Your task to perform on an android device: Do I have any events today? Image 0: 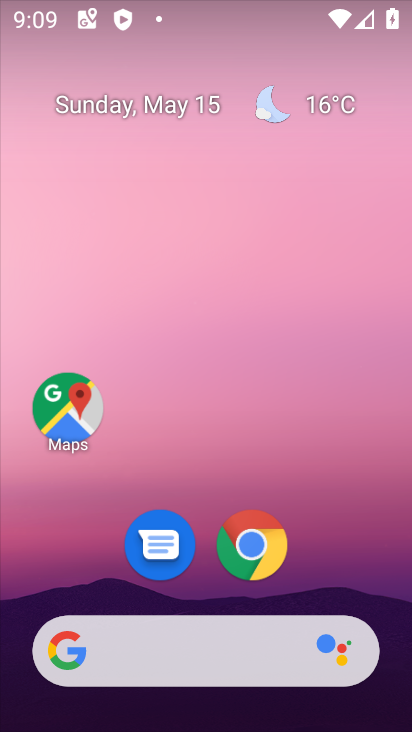
Step 0: drag from (323, 579) to (199, 30)
Your task to perform on an android device: Do I have any events today? Image 1: 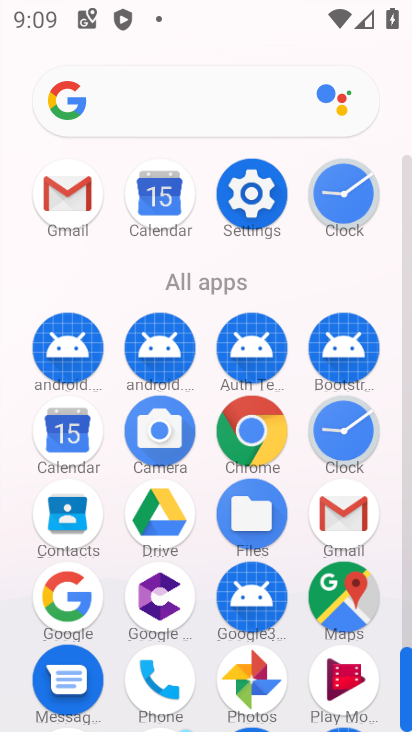
Step 1: click (66, 431)
Your task to perform on an android device: Do I have any events today? Image 2: 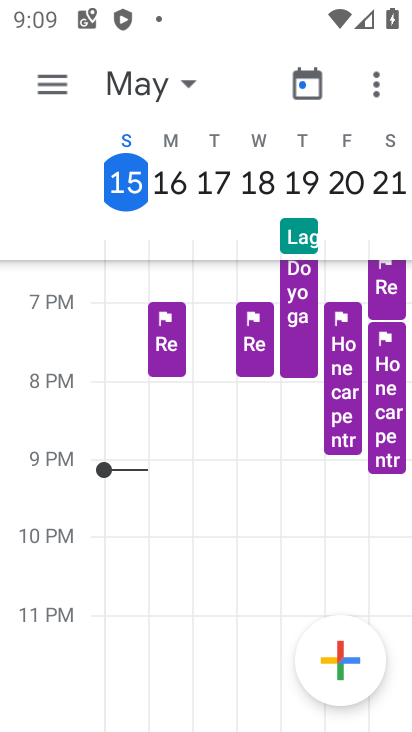
Step 2: click (309, 88)
Your task to perform on an android device: Do I have any events today? Image 3: 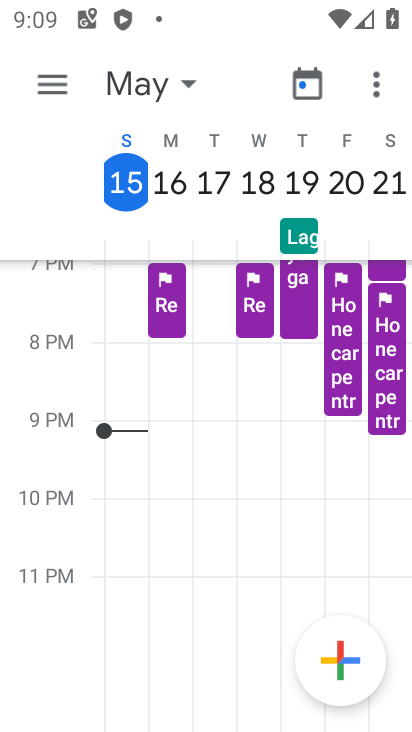
Step 3: click (184, 76)
Your task to perform on an android device: Do I have any events today? Image 4: 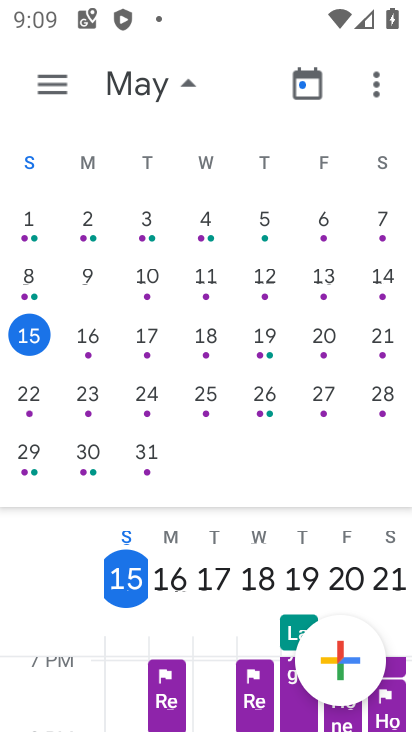
Step 4: click (33, 338)
Your task to perform on an android device: Do I have any events today? Image 5: 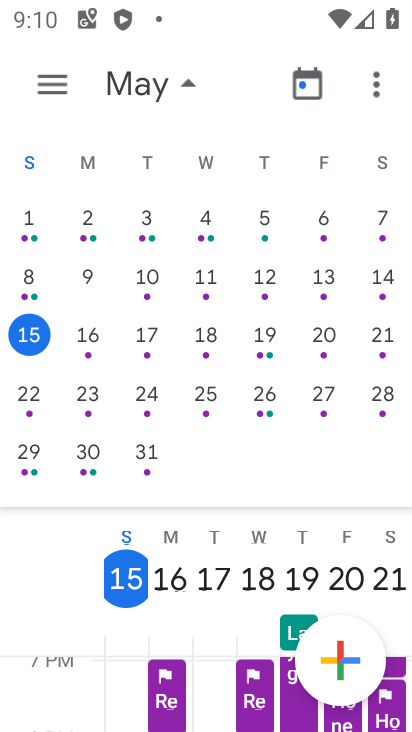
Step 5: click (64, 85)
Your task to perform on an android device: Do I have any events today? Image 6: 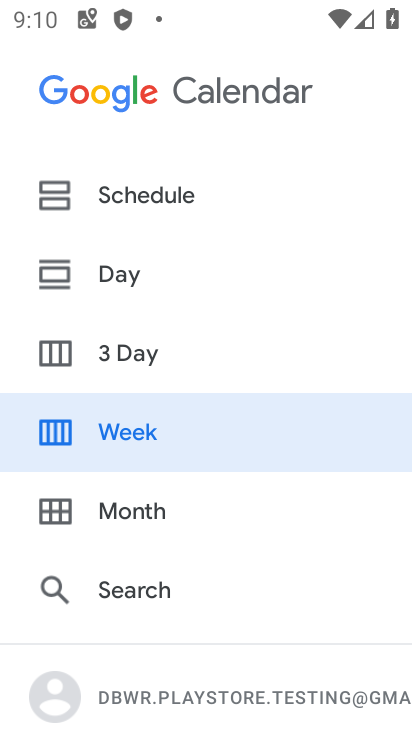
Step 6: click (122, 193)
Your task to perform on an android device: Do I have any events today? Image 7: 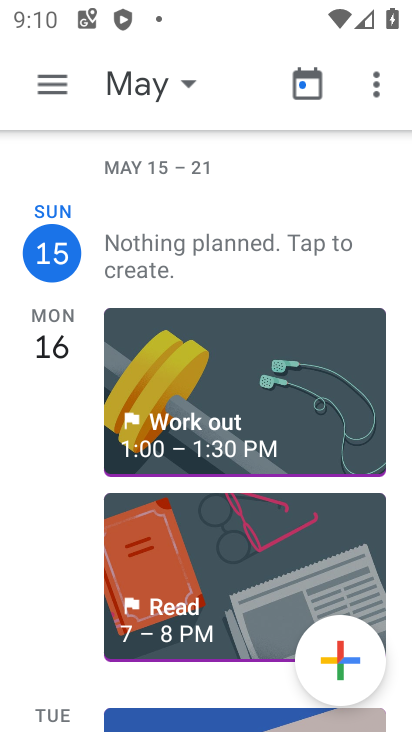
Step 7: drag from (231, 419) to (256, 352)
Your task to perform on an android device: Do I have any events today? Image 8: 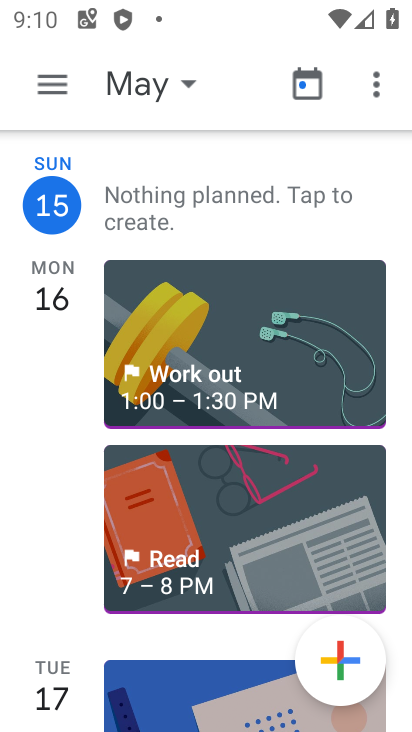
Step 8: drag from (221, 222) to (284, 316)
Your task to perform on an android device: Do I have any events today? Image 9: 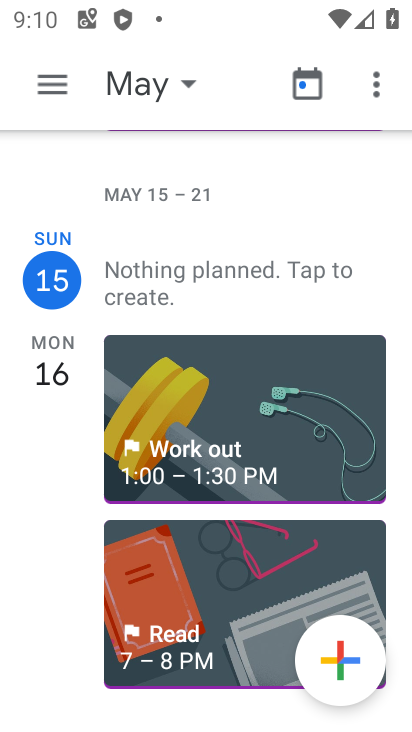
Step 9: click (244, 271)
Your task to perform on an android device: Do I have any events today? Image 10: 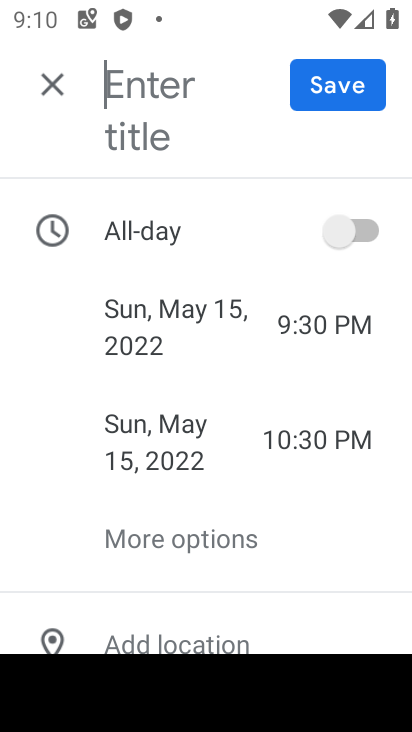
Step 10: task complete